Your task to perform on an android device: Open the web browser Image 0: 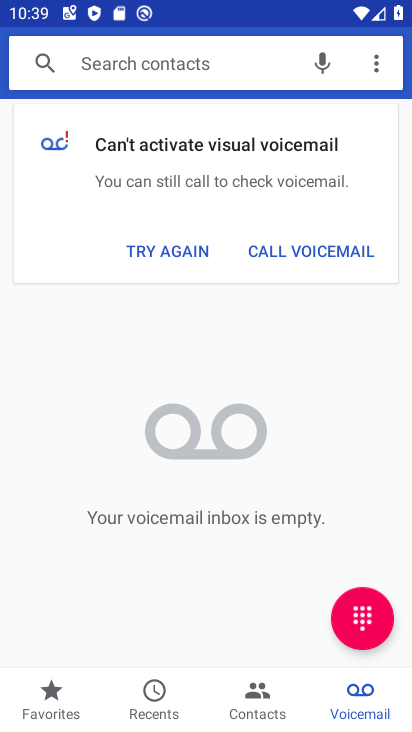
Step 0: press home button
Your task to perform on an android device: Open the web browser Image 1: 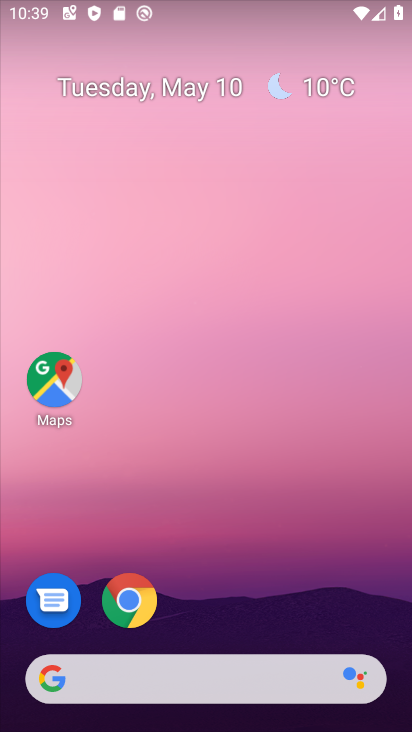
Step 1: click (134, 604)
Your task to perform on an android device: Open the web browser Image 2: 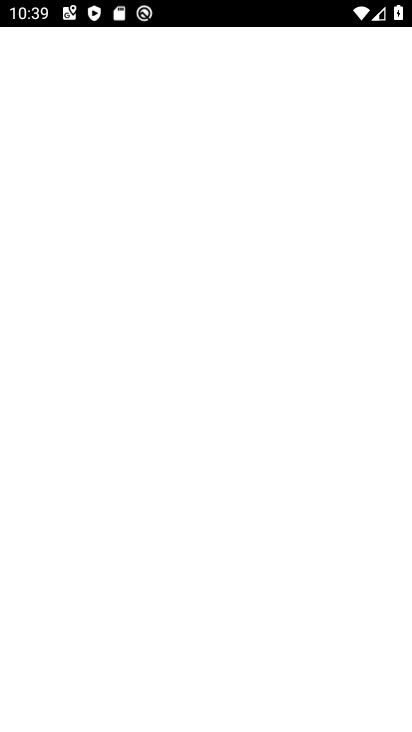
Step 2: task complete